Your task to perform on an android device: Open privacy settings Image 0: 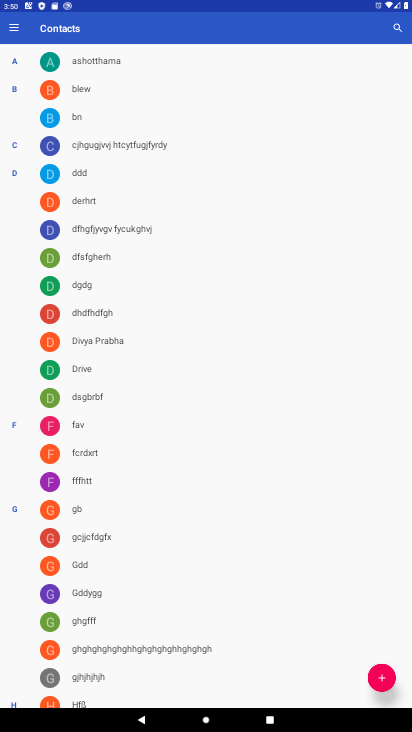
Step 0: press home button
Your task to perform on an android device: Open privacy settings Image 1: 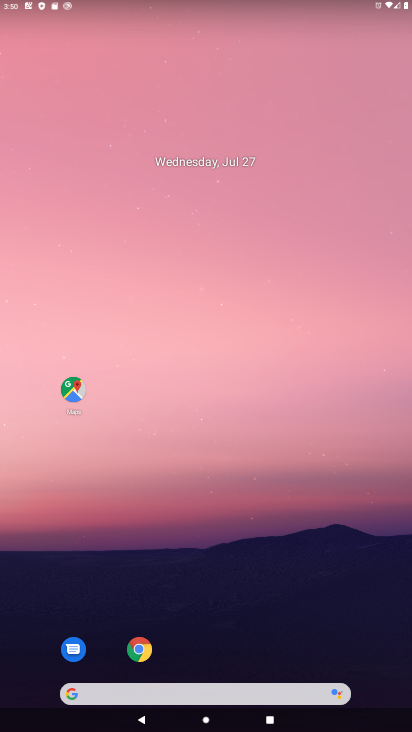
Step 1: drag from (388, 688) to (342, 216)
Your task to perform on an android device: Open privacy settings Image 2: 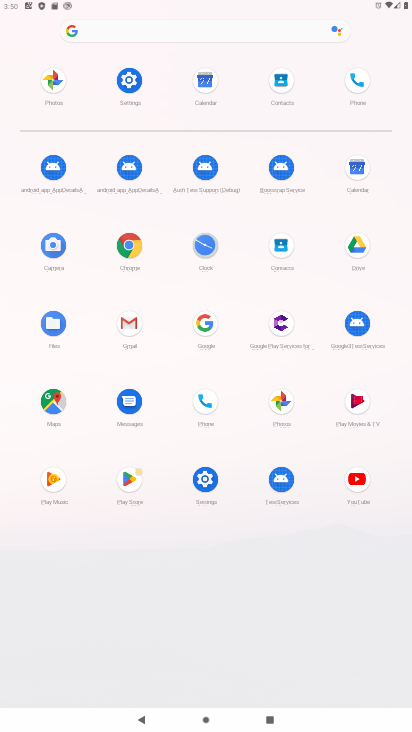
Step 2: click (207, 480)
Your task to perform on an android device: Open privacy settings Image 3: 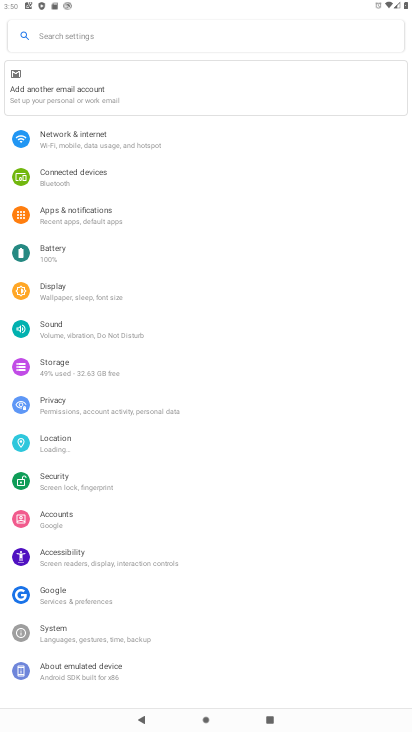
Step 3: click (55, 399)
Your task to perform on an android device: Open privacy settings Image 4: 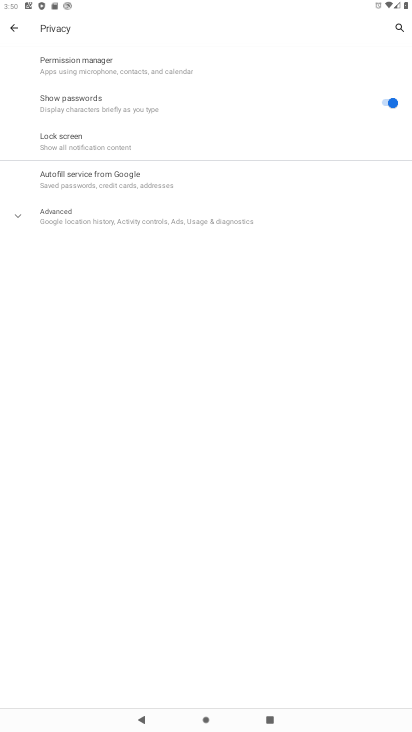
Step 4: click (16, 215)
Your task to perform on an android device: Open privacy settings Image 5: 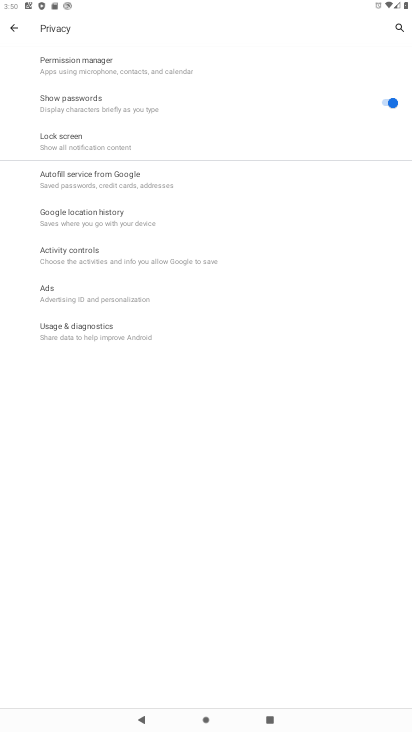
Step 5: task complete